Your task to perform on an android device: Show me productivity apps on the Play Store Image 0: 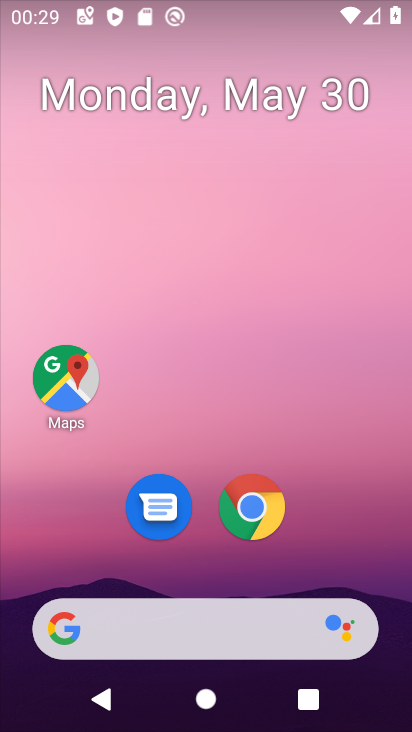
Step 0: drag from (316, 543) to (264, 263)
Your task to perform on an android device: Show me productivity apps on the Play Store Image 1: 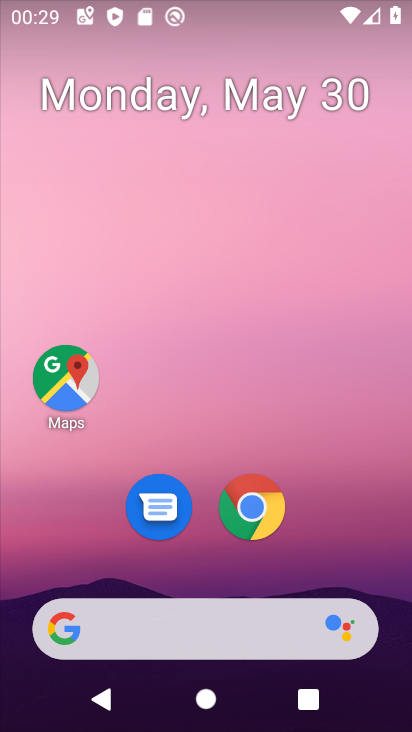
Step 1: drag from (228, 572) to (257, 175)
Your task to perform on an android device: Show me productivity apps on the Play Store Image 2: 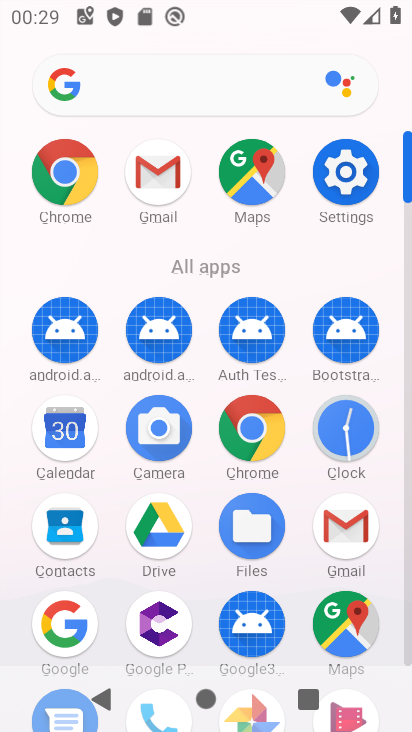
Step 2: drag from (203, 571) to (224, 350)
Your task to perform on an android device: Show me productivity apps on the Play Store Image 3: 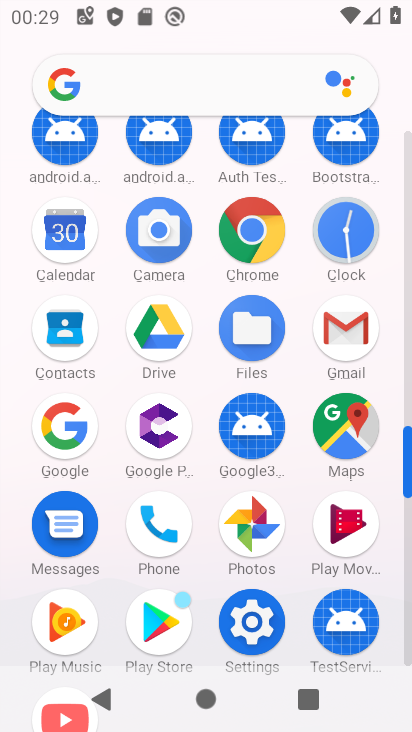
Step 3: click (161, 621)
Your task to perform on an android device: Show me productivity apps on the Play Store Image 4: 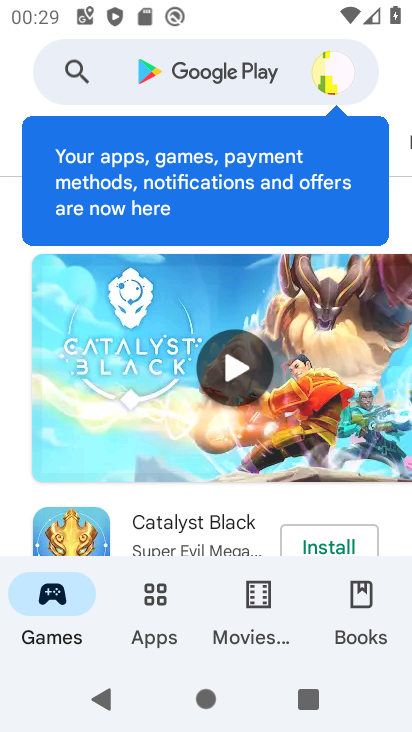
Step 4: click (146, 598)
Your task to perform on an android device: Show me productivity apps on the Play Store Image 5: 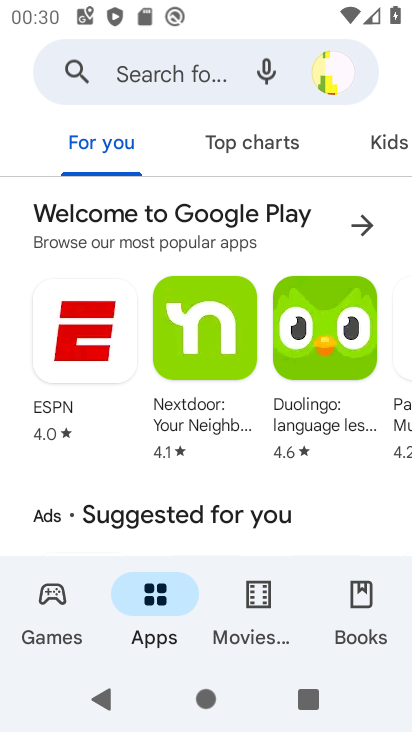
Step 5: task complete